Your task to perform on an android device: turn off translation in the chrome app Image 0: 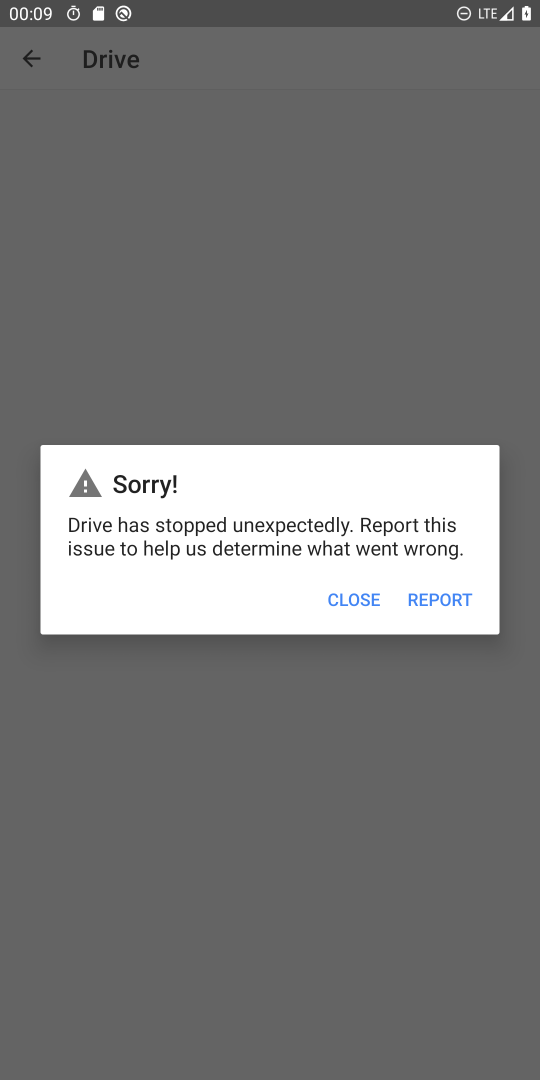
Step 0: click (353, 1009)
Your task to perform on an android device: turn off translation in the chrome app Image 1: 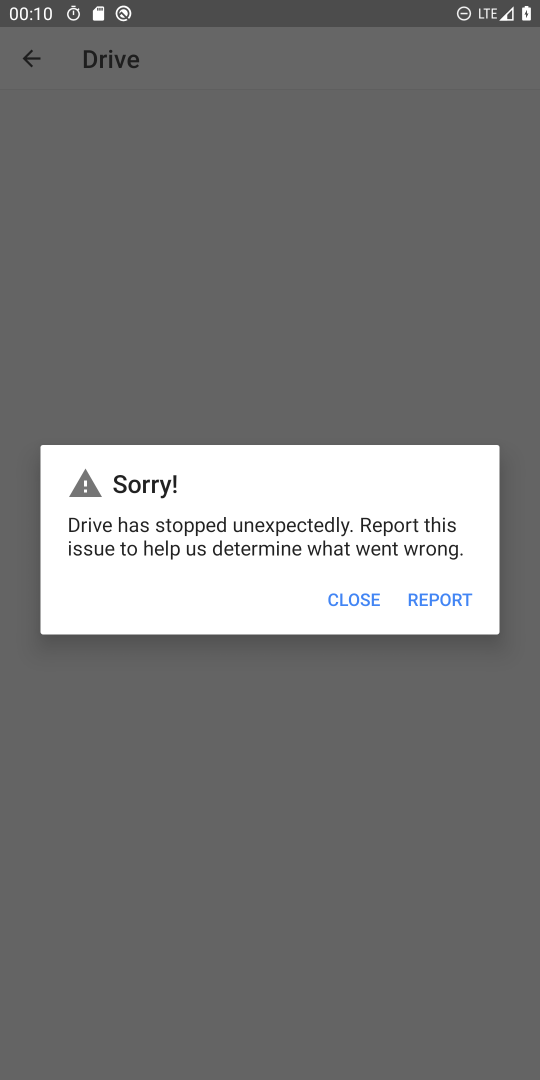
Step 1: press home button
Your task to perform on an android device: turn off translation in the chrome app Image 2: 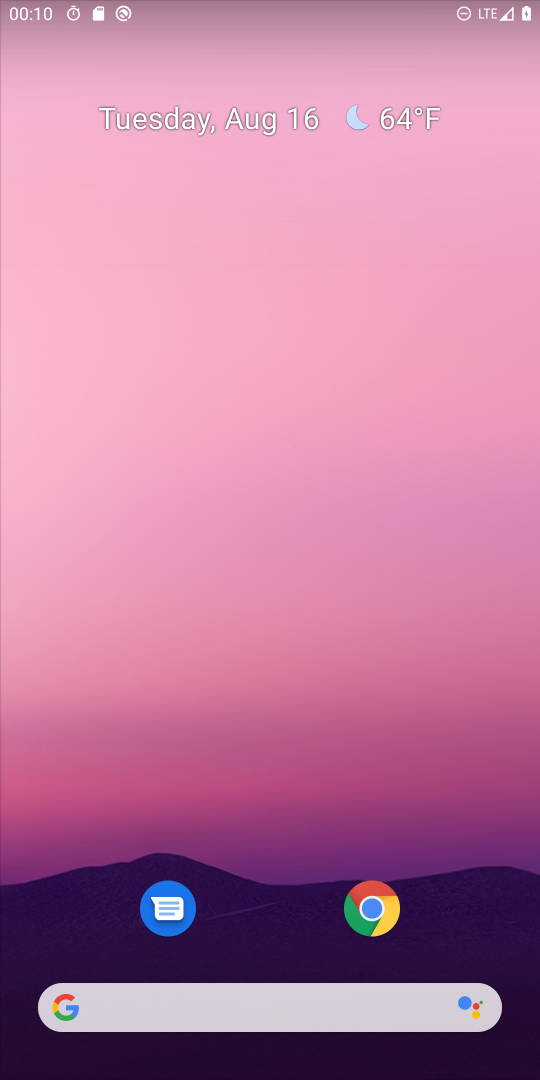
Step 2: click (362, 898)
Your task to perform on an android device: turn off translation in the chrome app Image 3: 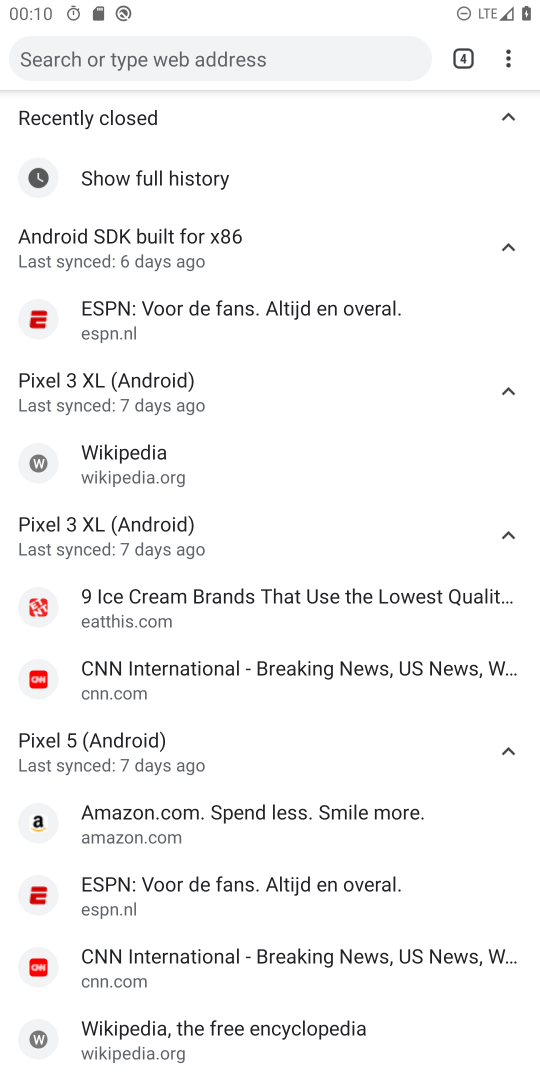
Step 3: click (515, 68)
Your task to perform on an android device: turn off translation in the chrome app Image 4: 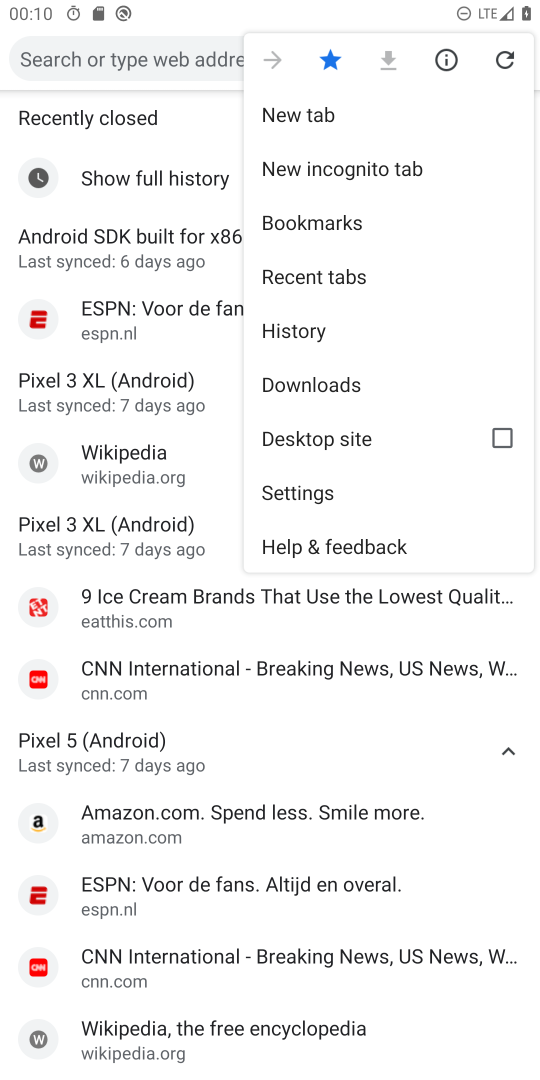
Step 4: click (262, 507)
Your task to perform on an android device: turn off translation in the chrome app Image 5: 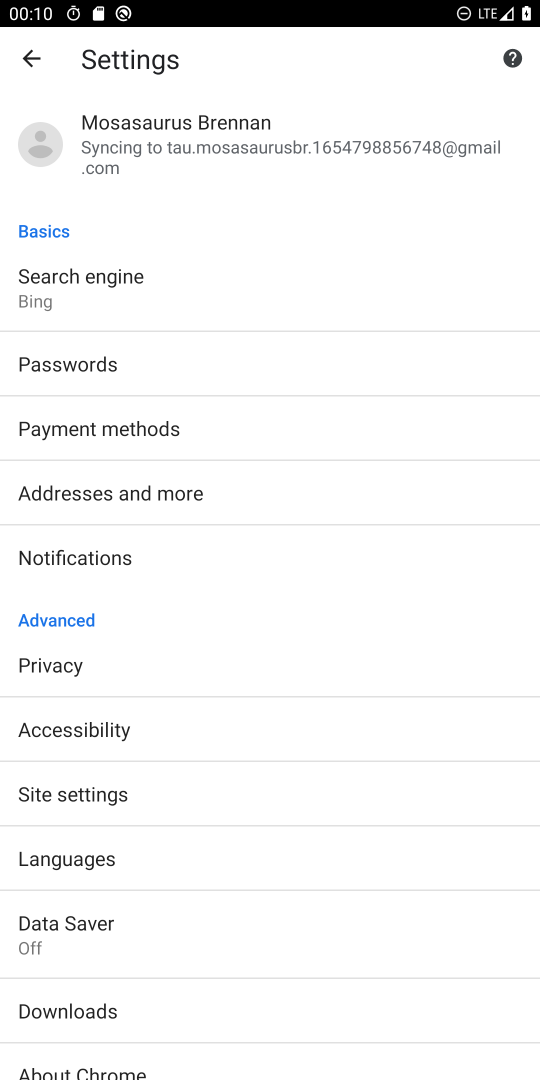
Step 5: click (372, 851)
Your task to perform on an android device: turn off translation in the chrome app Image 6: 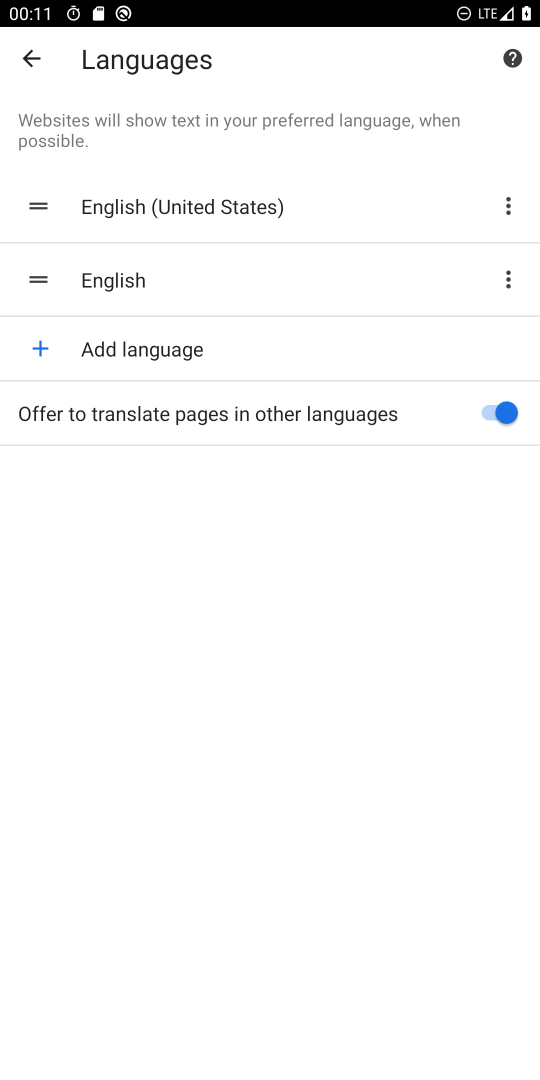
Step 6: click (498, 411)
Your task to perform on an android device: turn off translation in the chrome app Image 7: 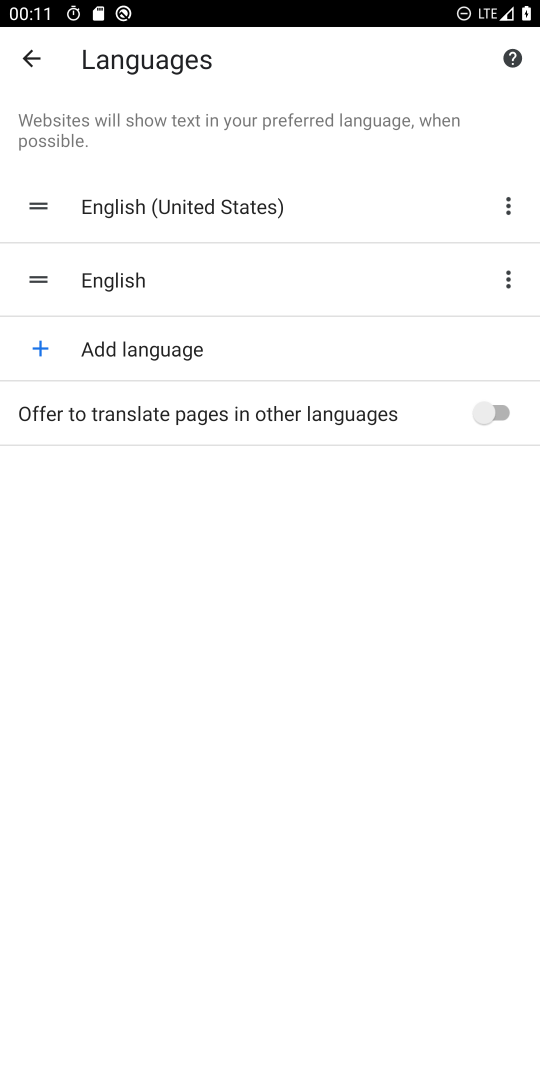
Step 7: task complete